Your task to perform on an android device: Open Google Chrome Image 0: 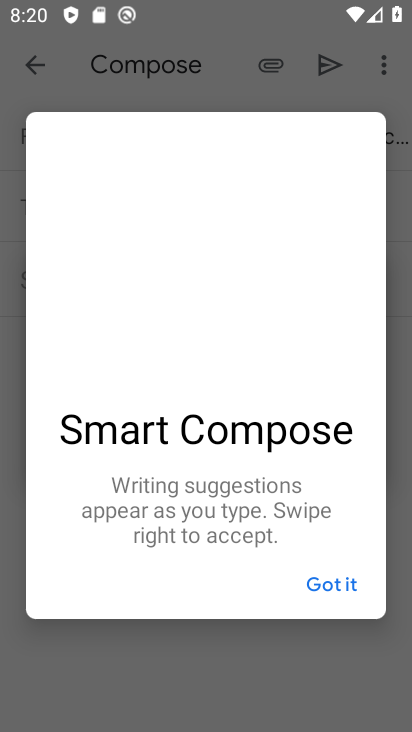
Step 0: press home button
Your task to perform on an android device: Open Google Chrome Image 1: 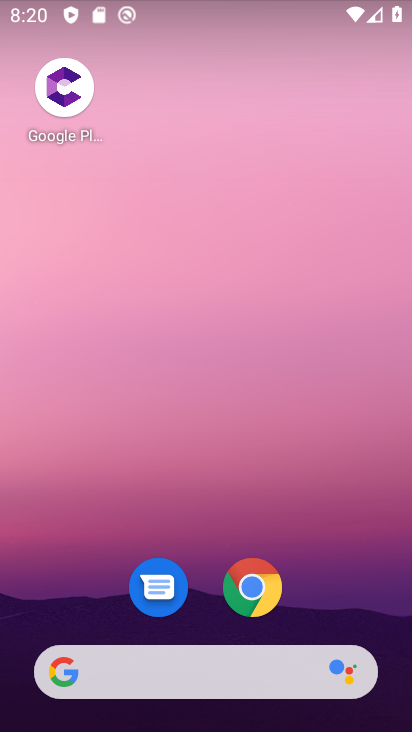
Step 1: click (271, 605)
Your task to perform on an android device: Open Google Chrome Image 2: 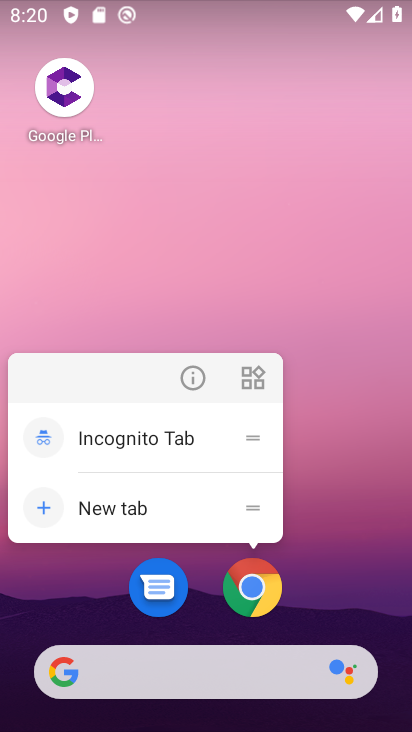
Step 2: click (260, 582)
Your task to perform on an android device: Open Google Chrome Image 3: 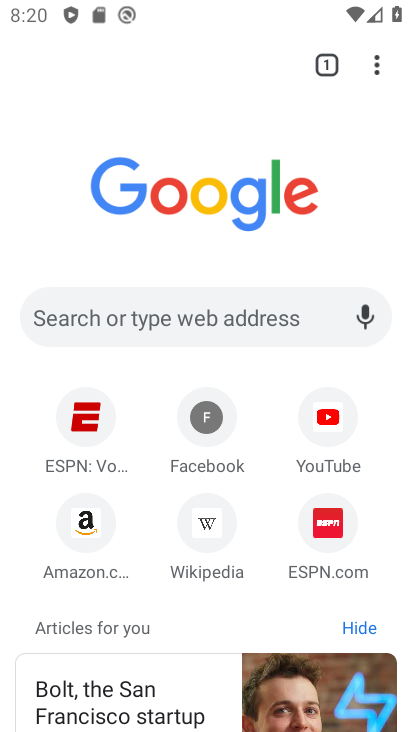
Step 3: task complete